Your task to perform on an android device: Do I have any events today? Image 0: 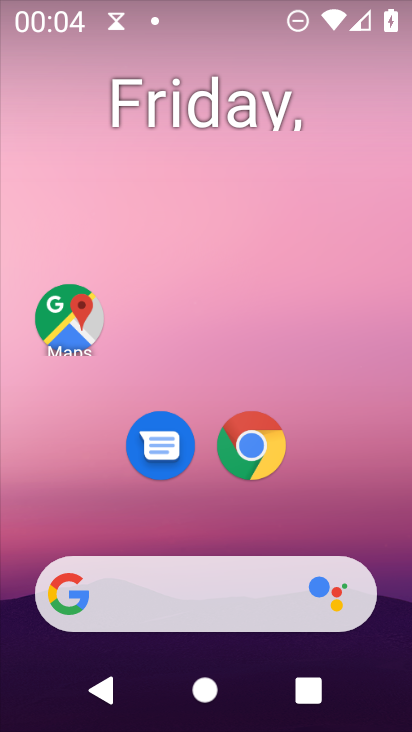
Step 0: drag from (216, 728) to (217, 19)
Your task to perform on an android device: Do I have any events today? Image 1: 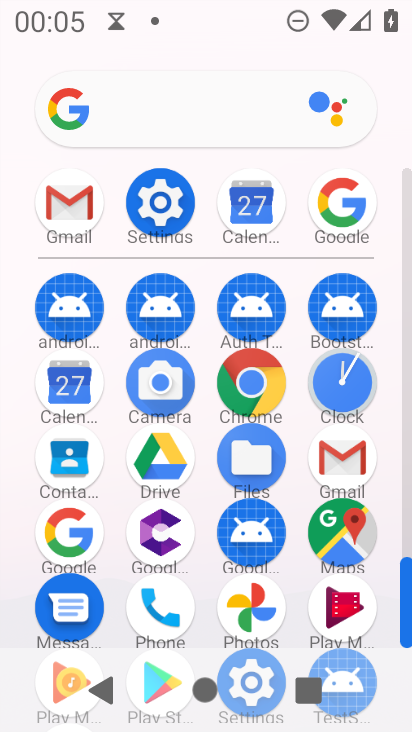
Step 1: click (74, 386)
Your task to perform on an android device: Do I have any events today? Image 2: 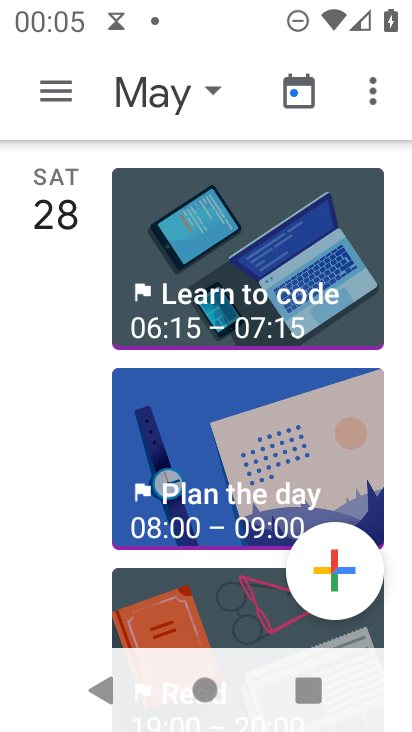
Step 2: click (204, 87)
Your task to perform on an android device: Do I have any events today? Image 3: 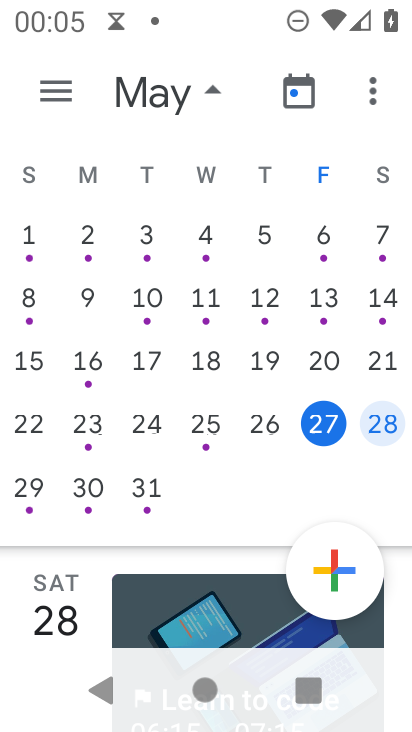
Step 3: click (318, 424)
Your task to perform on an android device: Do I have any events today? Image 4: 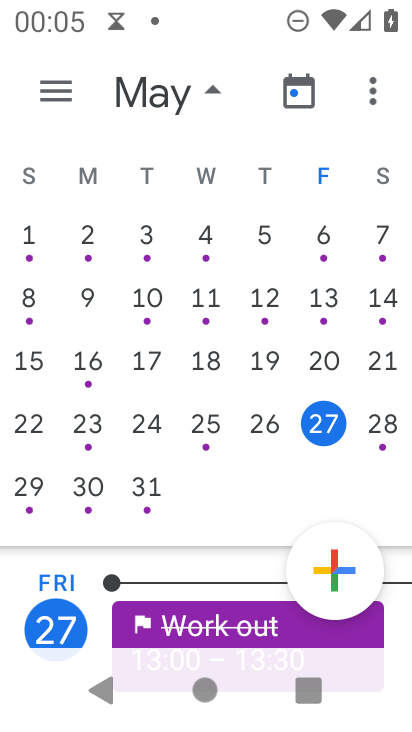
Step 4: click (49, 86)
Your task to perform on an android device: Do I have any events today? Image 5: 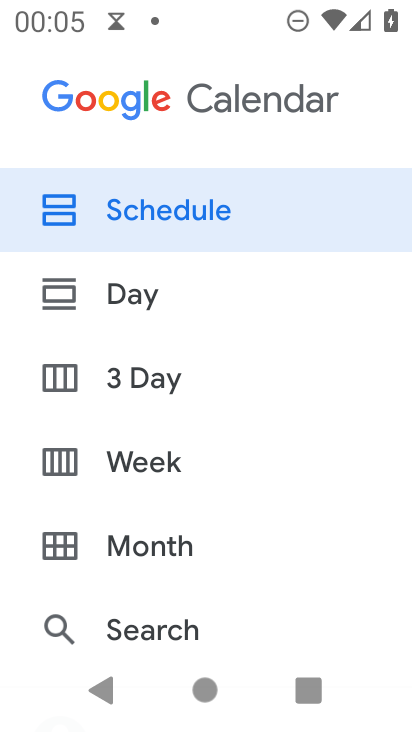
Step 5: drag from (112, 614) to (127, 140)
Your task to perform on an android device: Do I have any events today? Image 6: 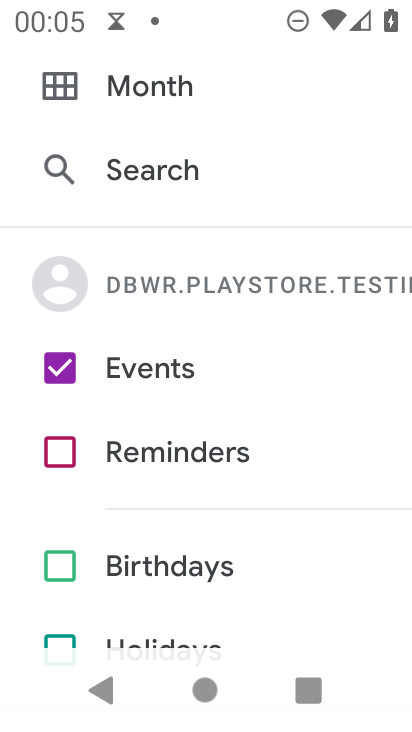
Step 6: drag from (269, 162) to (255, 615)
Your task to perform on an android device: Do I have any events today? Image 7: 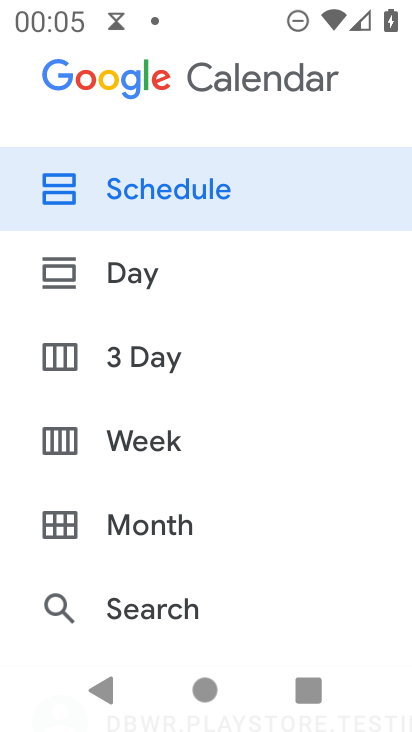
Step 7: click (180, 185)
Your task to perform on an android device: Do I have any events today? Image 8: 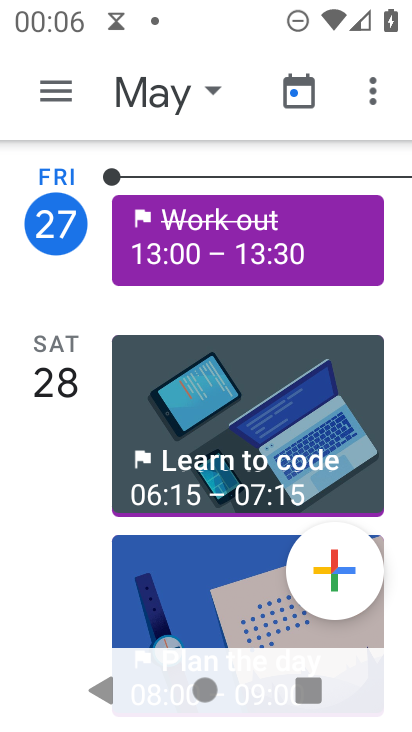
Step 8: task complete